Your task to perform on an android device: make emails show in primary in the gmail app Image 0: 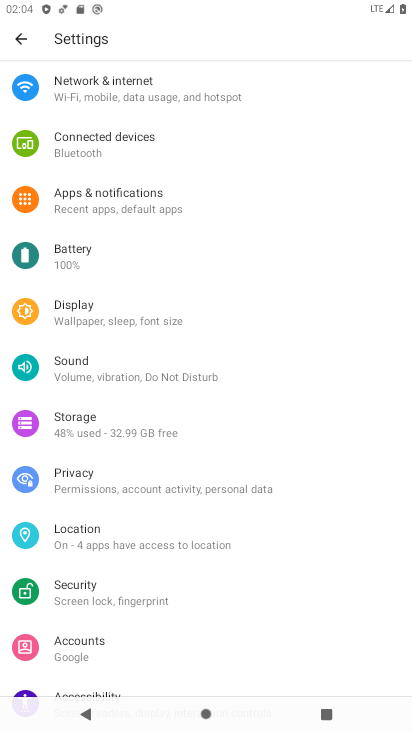
Step 0: press home button
Your task to perform on an android device: make emails show in primary in the gmail app Image 1: 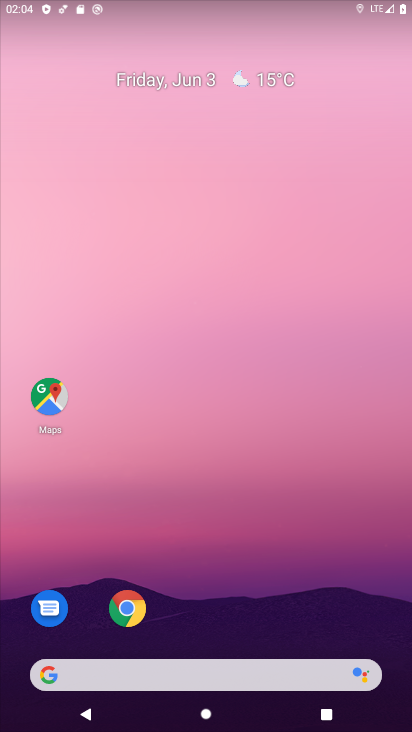
Step 1: drag from (259, 600) to (220, 196)
Your task to perform on an android device: make emails show in primary in the gmail app Image 2: 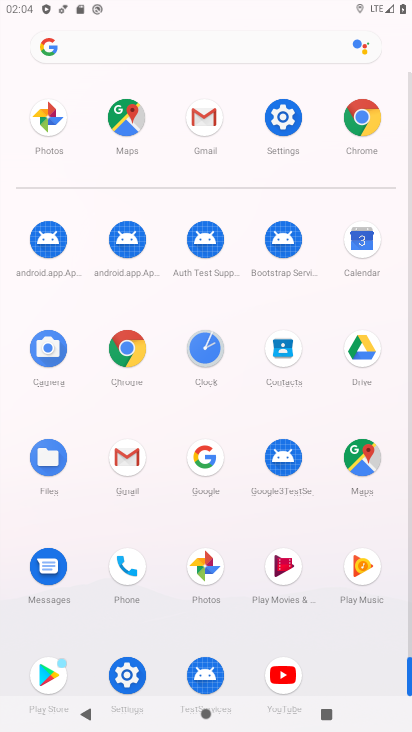
Step 2: click (198, 126)
Your task to perform on an android device: make emails show in primary in the gmail app Image 3: 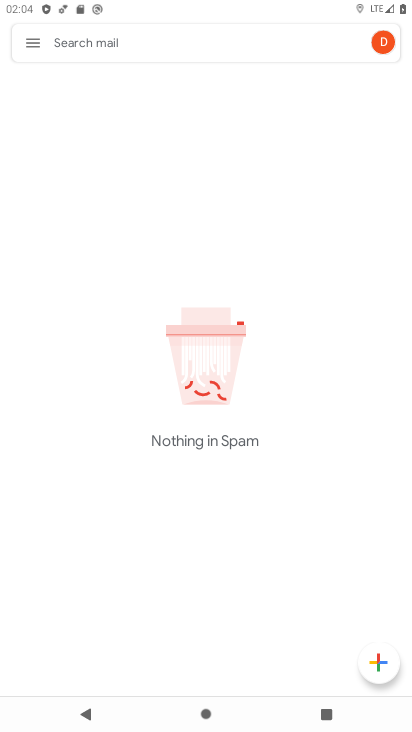
Step 3: click (33, 33)
Your task to perform on an android device: make emails show in primary in the gmail app Image 4: 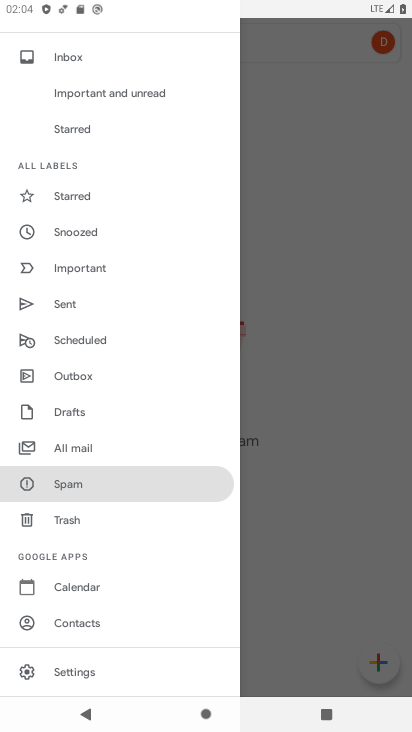
Step 4: click (85, 662)
Your task to perform on an android device: make emails show in primary in the gmail app Image 5: 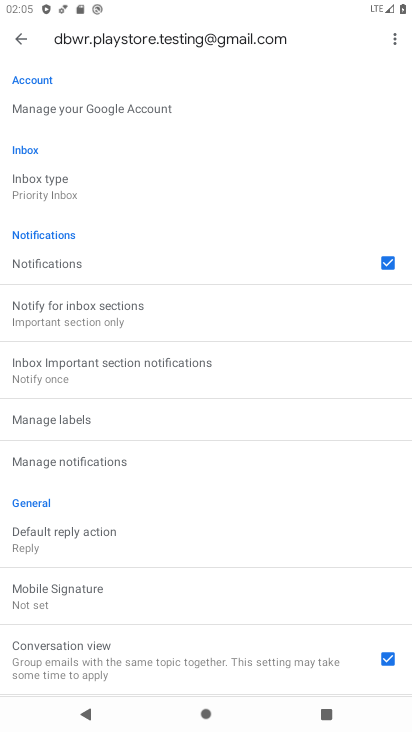
Step 5: click (65, 184)
Your task to perform on an android device: make emails show in primary in the gmail app Image 6: 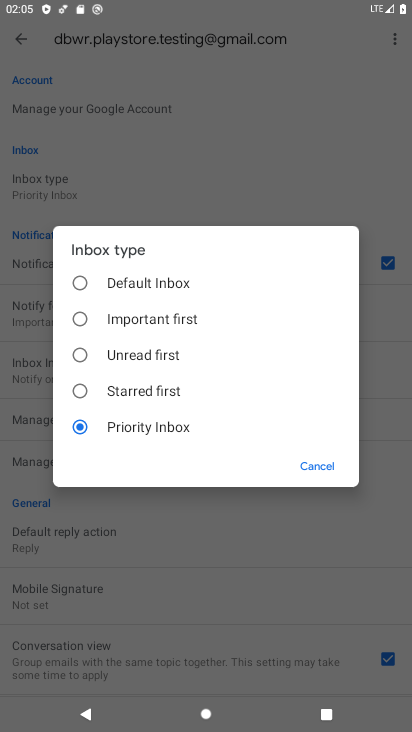
Step 6: click (123, 278)
Your task to perform on an android device: make emails show in primary in the gmail app Image 7: 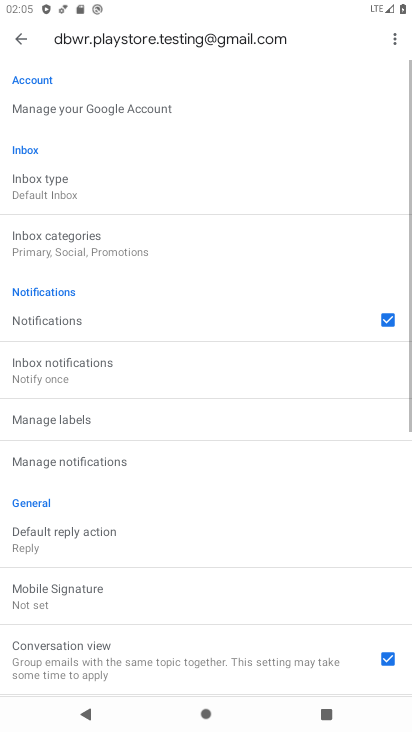
Step 7: click (70, 249)
Your task to perform on an android device: make emails show in primary in the gmail app Image 8: 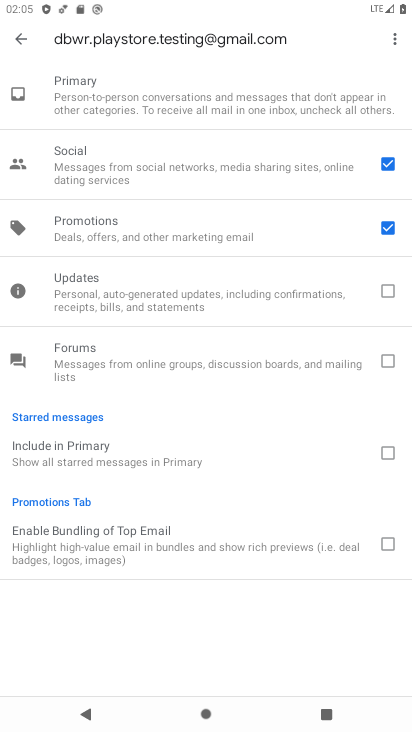
Step 8: task complete